Your task to perform on an android device: check the backup settings in the google photos Image 0: 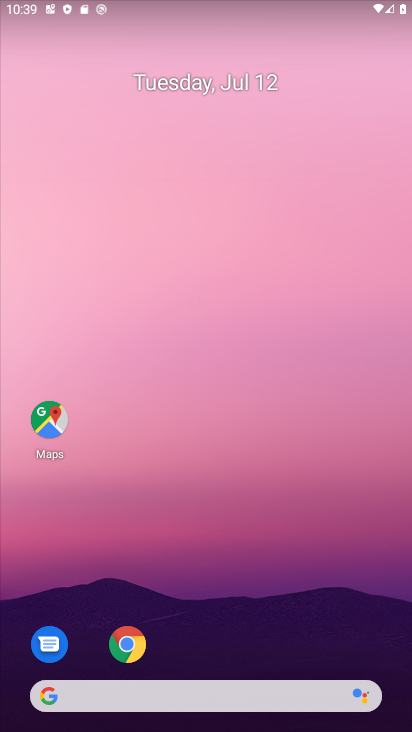
Step 0: drag from (217, 647) to (250, 60)
Your task to perform on an android device: check the backup settings in the google photos Image 1: 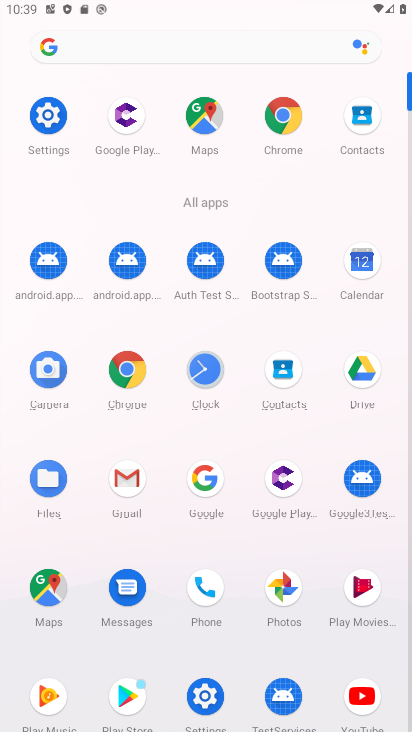
Step 1: click (285, 583)
Your task to perform on an android device: check the backup settings in the google photos Image 2: 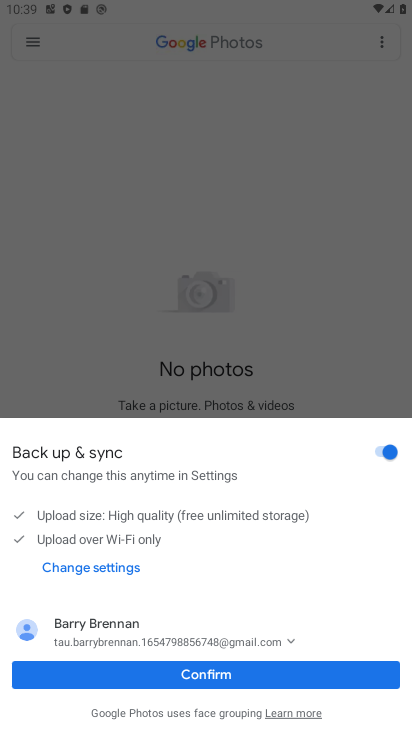
Step 2: click (223, 676)
Your task to perform on an android device: check the backup settings in the google photos Image 3: 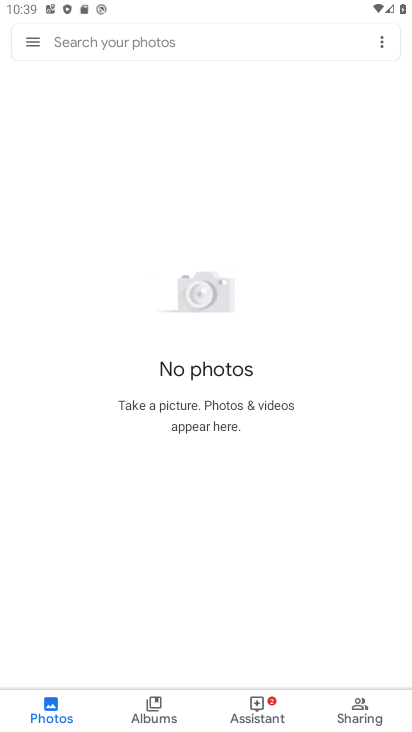
Step 3: click (28, 40)
Your task to perform on an android device: check the backup settings in the google photos Image 4: 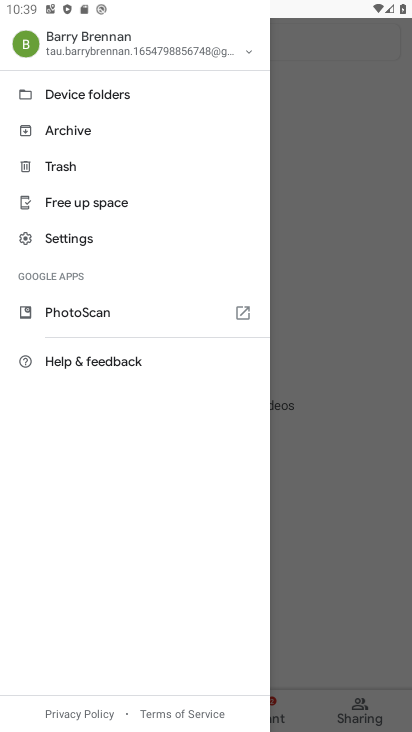
Step 4: click (92, 238)
Your task to perform on an android device: check the backup settings in the google photos Image 5: 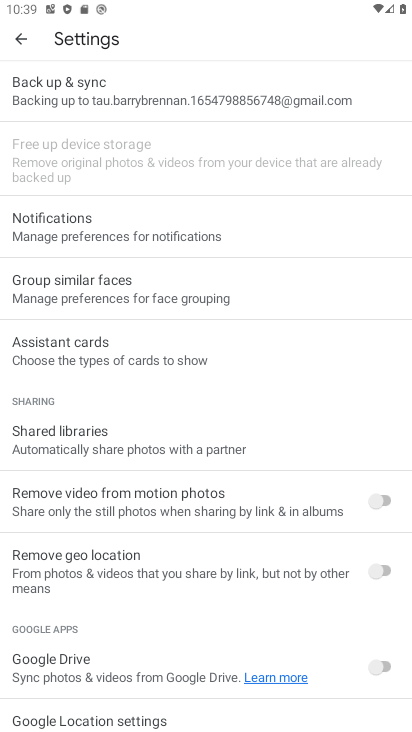
Step 5: click (111, 85)
Your task to perform on an android device: check the backup settings in the google photos Image 6: 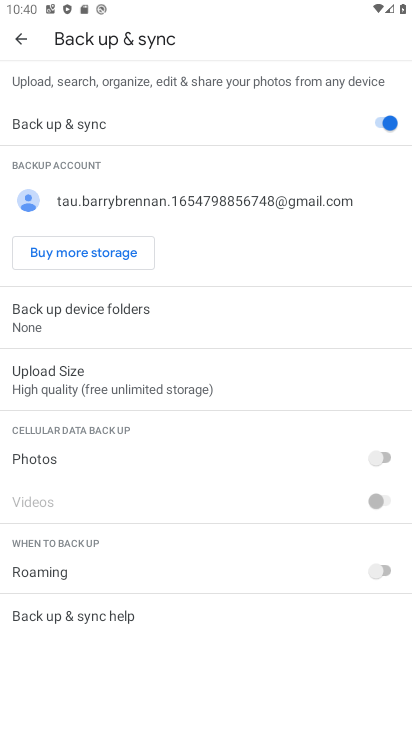
Step 6: task complete